Your task to perform on an android device: Search for "usb-c" on amazon, select the first entry, and add it to the cart. Image 0: 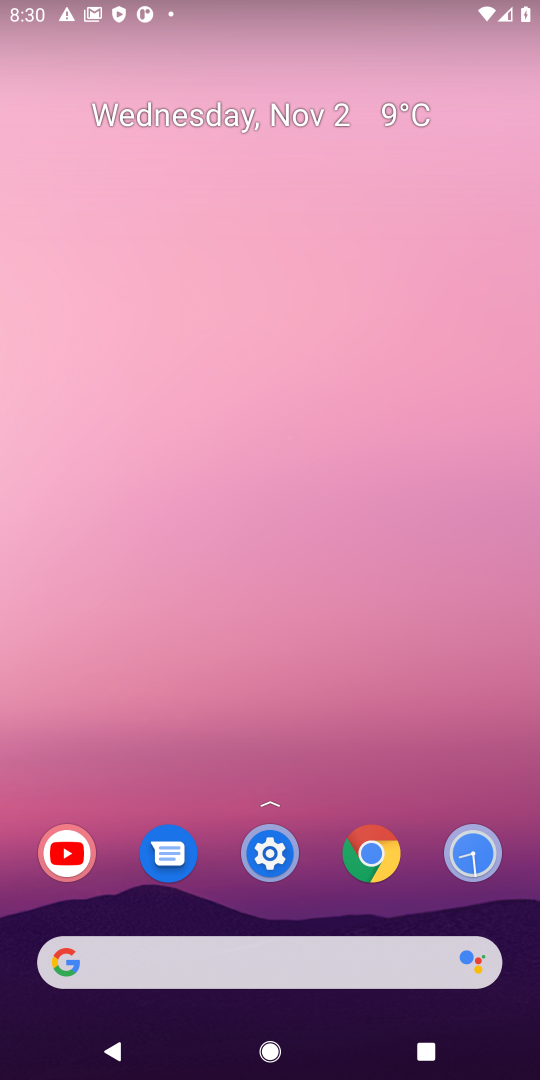
Step 0: click (371, 859)
Your task to perform on an android device: Search for "usb-c" on amazon, select the first entry, and add it to the cart. Image 1: 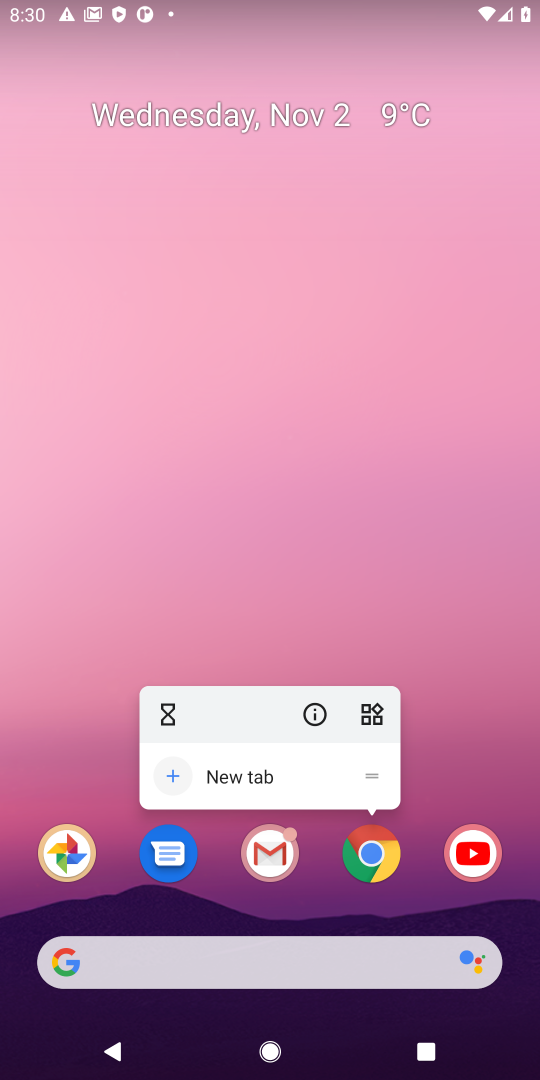
Step 1: click (386, 843)
Your task to perform on an android device: Search for "usb-c" on amazon, select the first entry, and add it to the cart. Image 2: 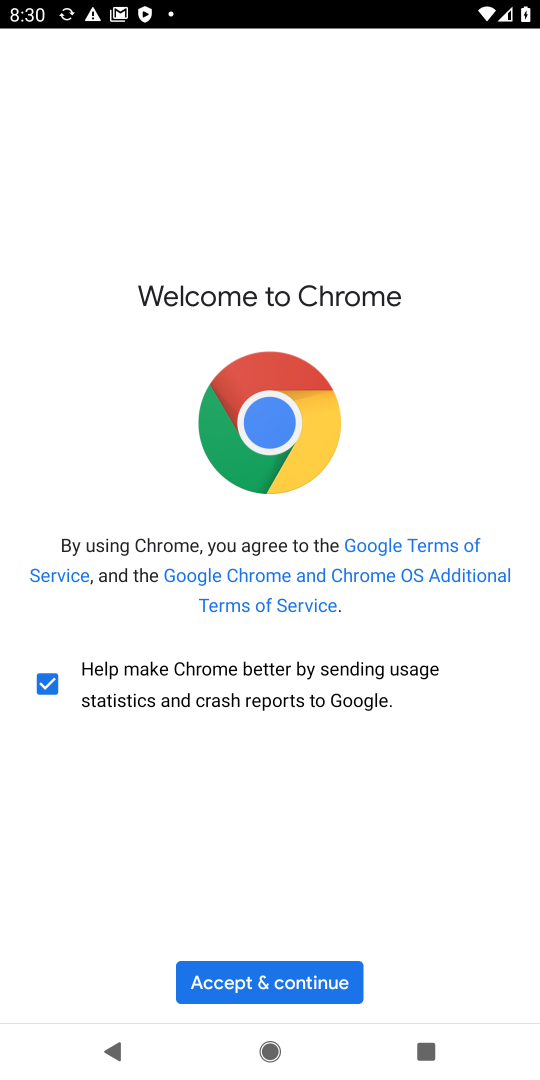
Step 2: click (246, 982)
Your task to perform on an android device: Search for "usb-c" on amazon, select the first entry, and add it to the cart. Image 3: 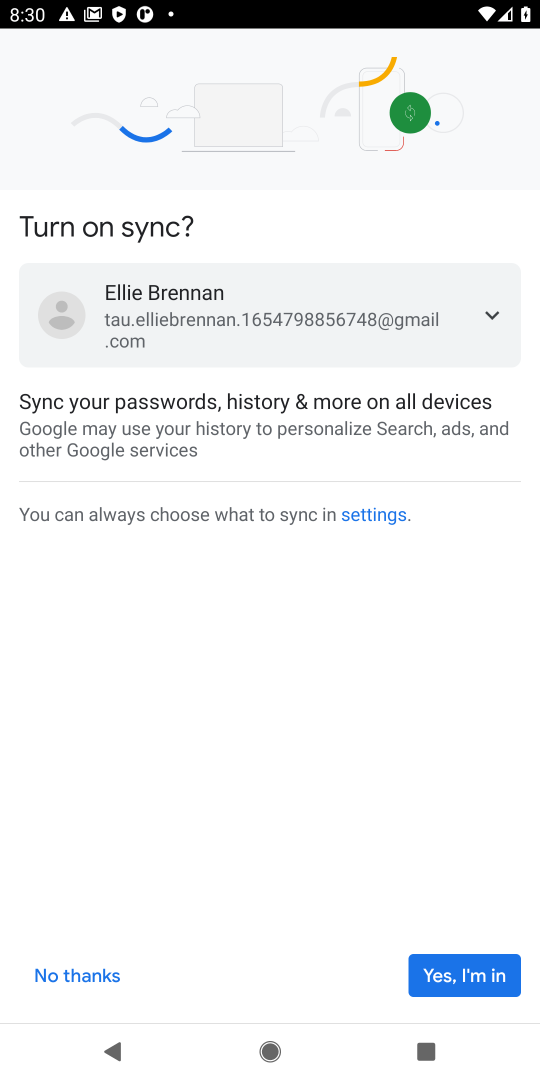
Step 3: click (451, 976)
Your task to perform on an android device: Search for "usb-c" on amazon, select the first entry, and add it to the cart. Image 4: 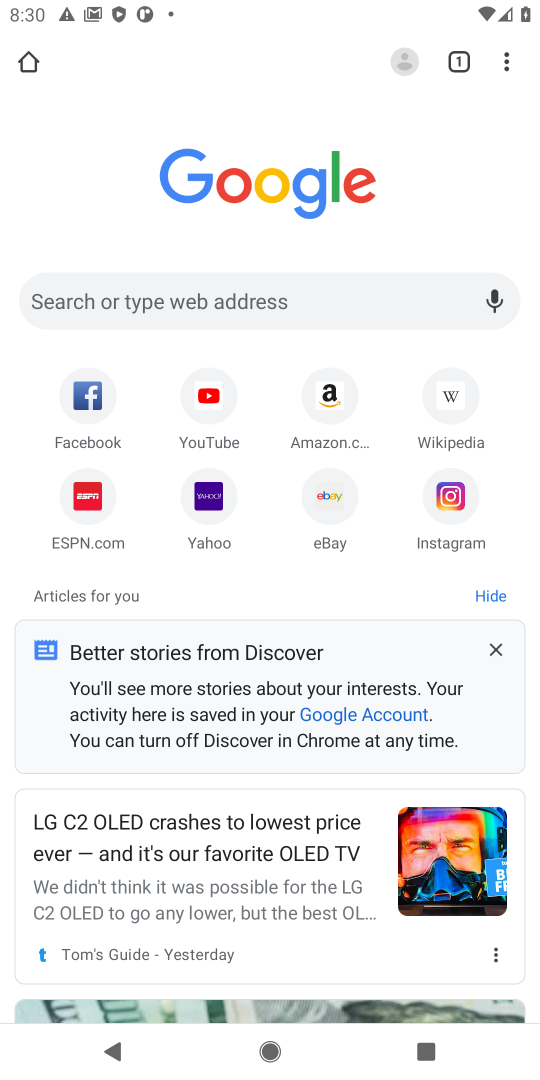
Step 4: click (330, 388)
Your task to perform on an android device: Search for "usb-c" on amazon, select the first entry, and add it to the cart. Image 5: 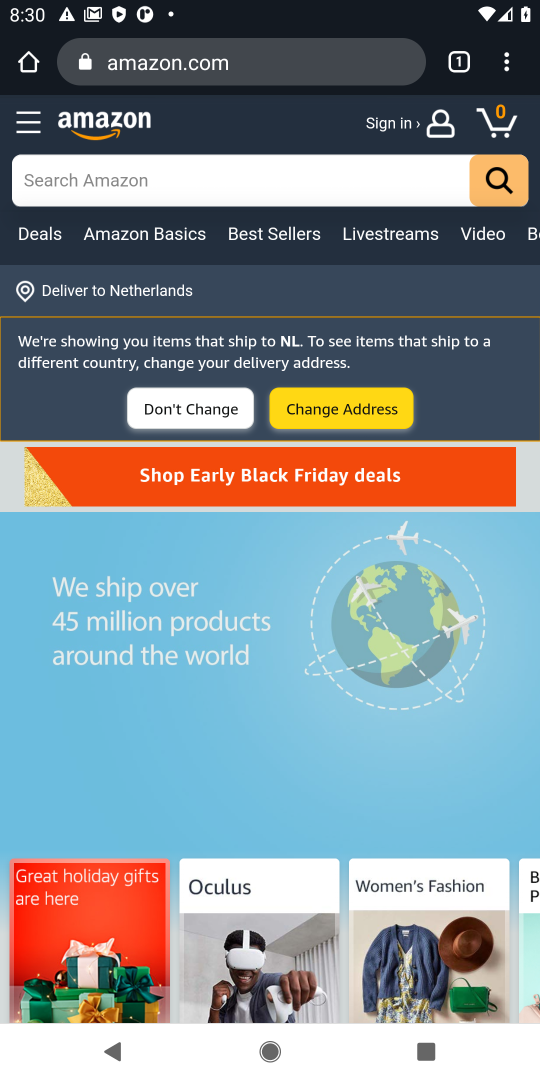
Step 5: click (171, 182)
Your task to perform on an android device: Search for "usb-c" on amazon, select the first entry, and add it to the cart. Image 6: 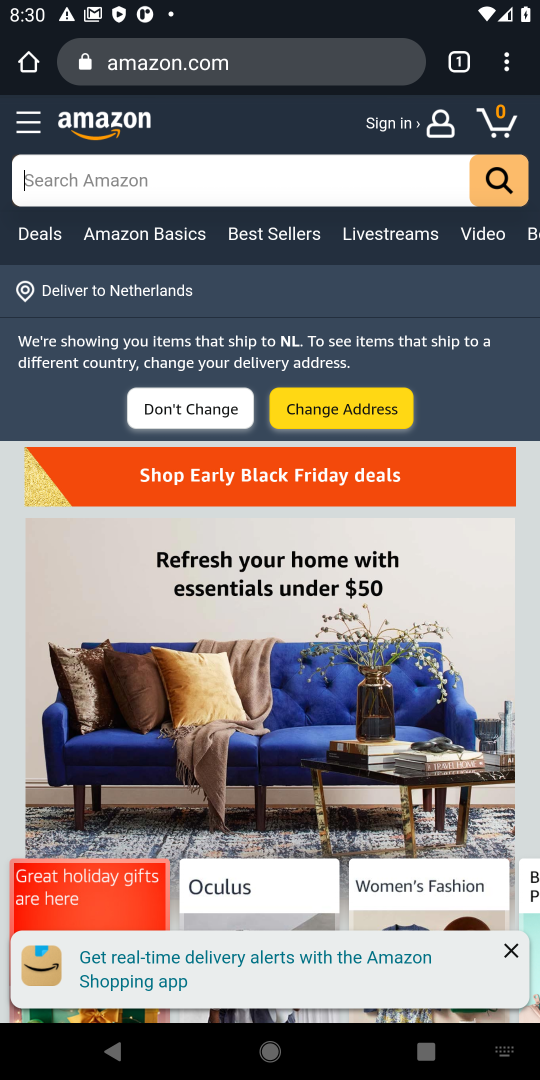
Step 6: type "usb-c"
Your task to perform on an android device: Search for "usb-c" on amazon, select the first entry, and add it to the cart. Image 7: 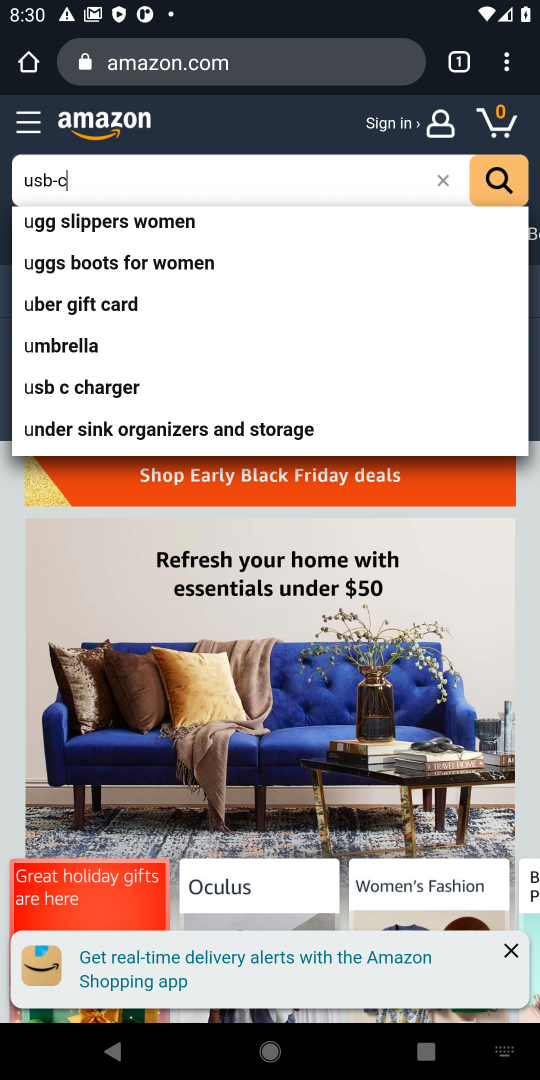
Step 7: press enter
Your task to perform on an android device: Search for "usb-c" on amazon, select the first entry, and add it to the cart. Image 8: 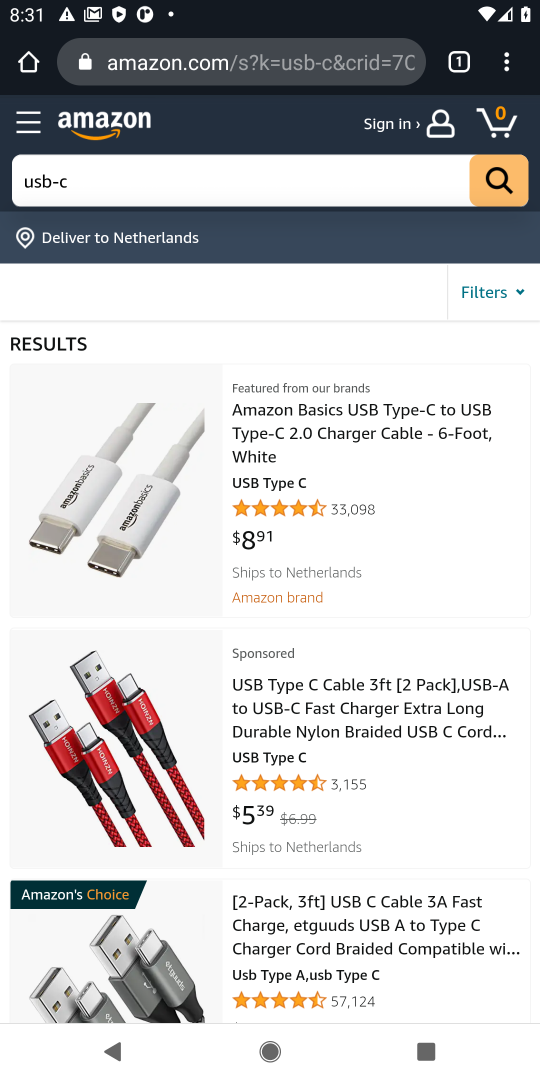
Step 8: click (353, 440)
Your task to perform on an android device: Search for "usb-c" on amazon, select the first entry, and add it to the cart. Image 9: 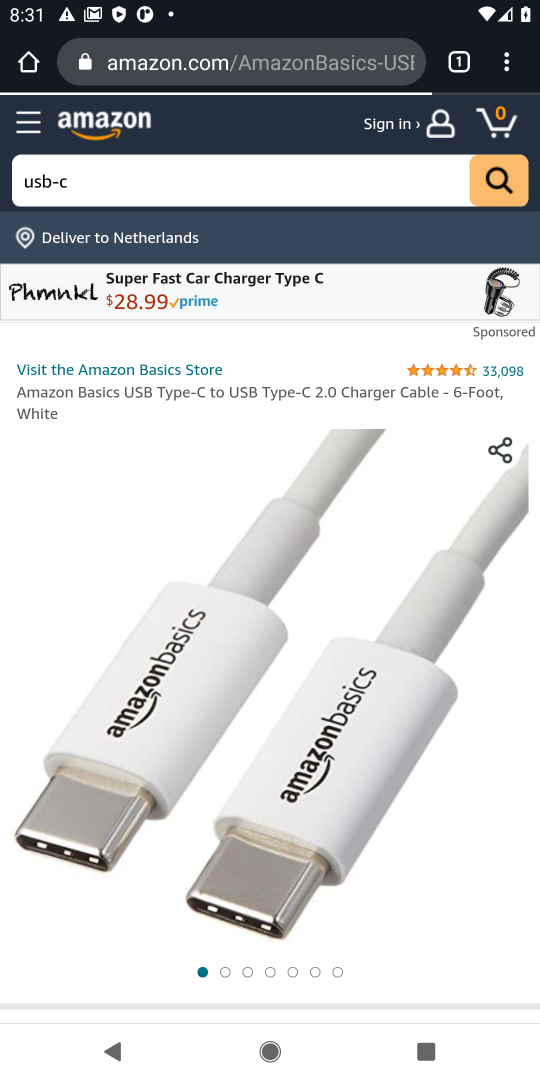
Step 9: drag from (343, 881) to (473, 379)
Your task to perform on an android device: Search for "usb-c" on amazon, select the first entry, and add it to the cart. Image 10: 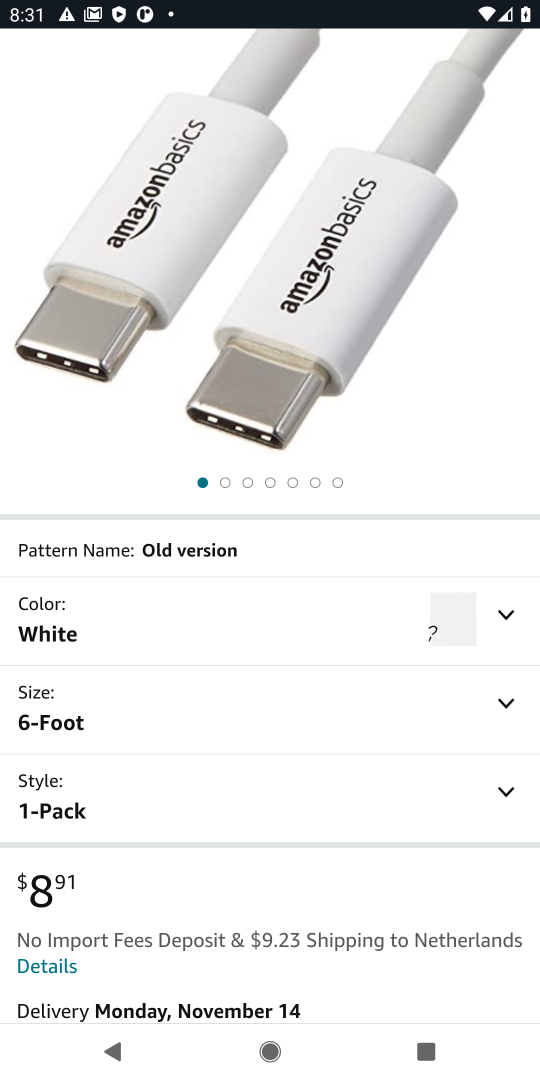
Step 10: drag from (131, 730) to (377, 173)
Your task to perform on an android device: Search for "usb-c" on amazon, select the first entry, and add it to the cart. Image 11: 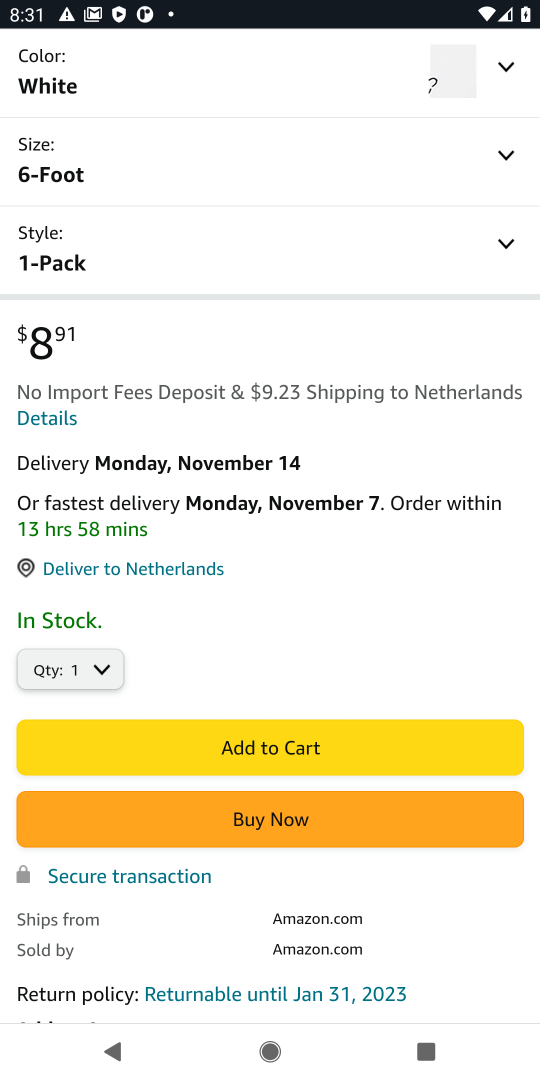
Step 11: click (291, 751)
Your task to perform on an android device: Search for "usb-c" on amazon, select the first entry, and add it to the cart. Image 12: 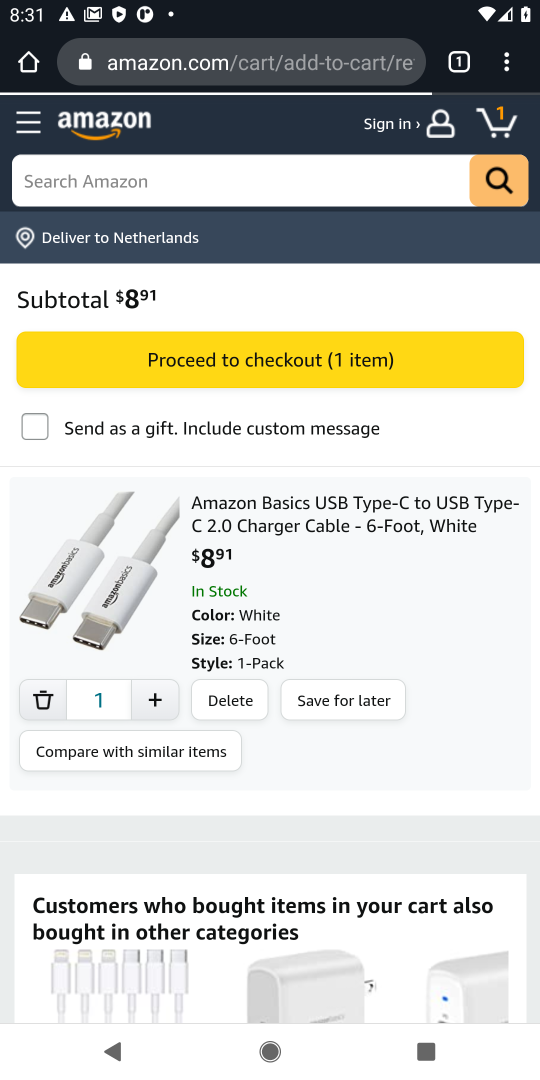
Step 12: click (287, 744)
Your task to perform on an android device: Search for "usb-c" on amazon, select the first entry, and add it to the cart. Image 13: 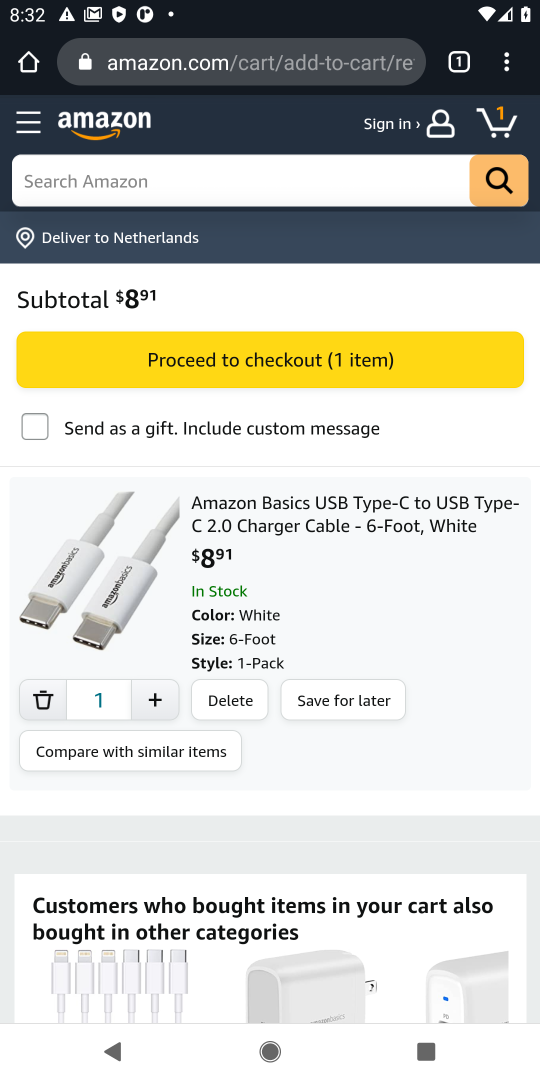
Step 13: task complete